Your task to perform on an android device: Show me the alarms in the clock app Image 0: 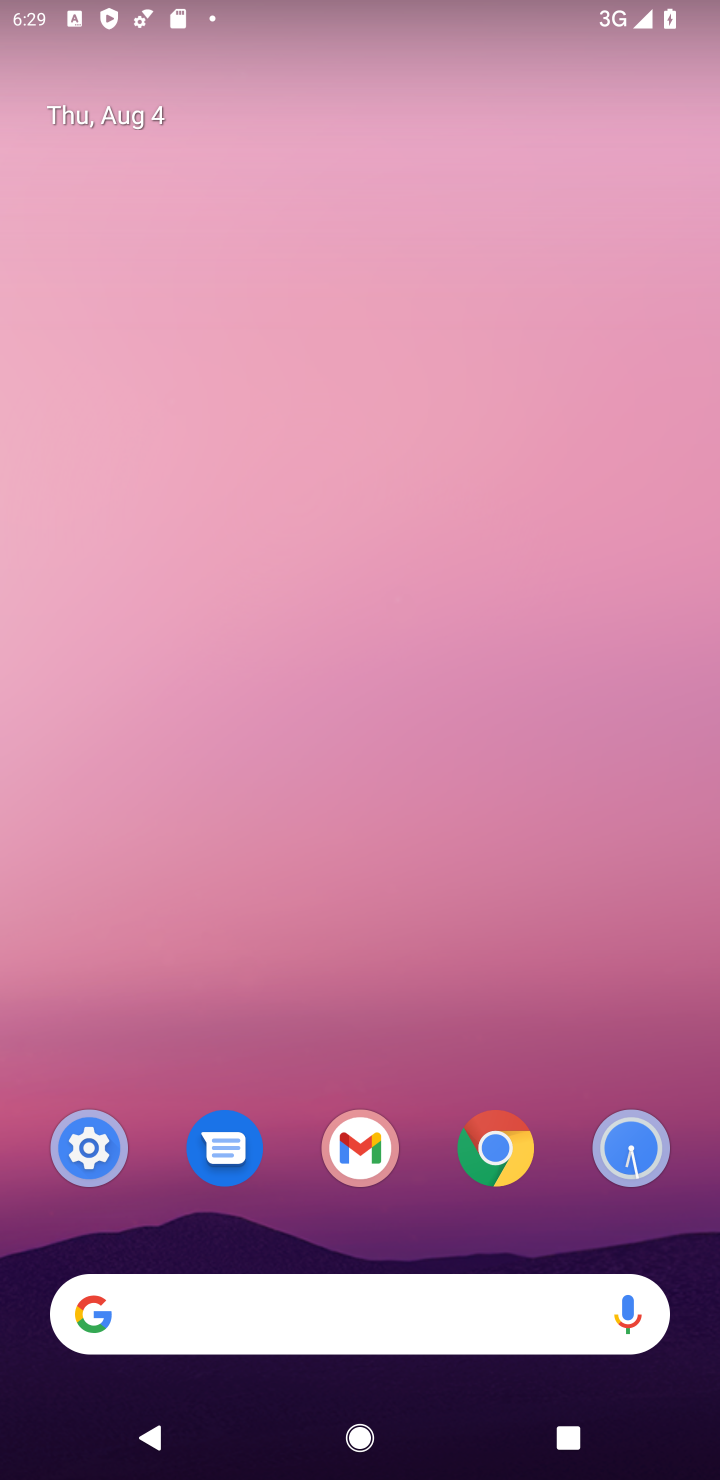
Step 0: click (626, 1146)
Your task to perform on an android device: Show me the alarms in the clock app Image 1: 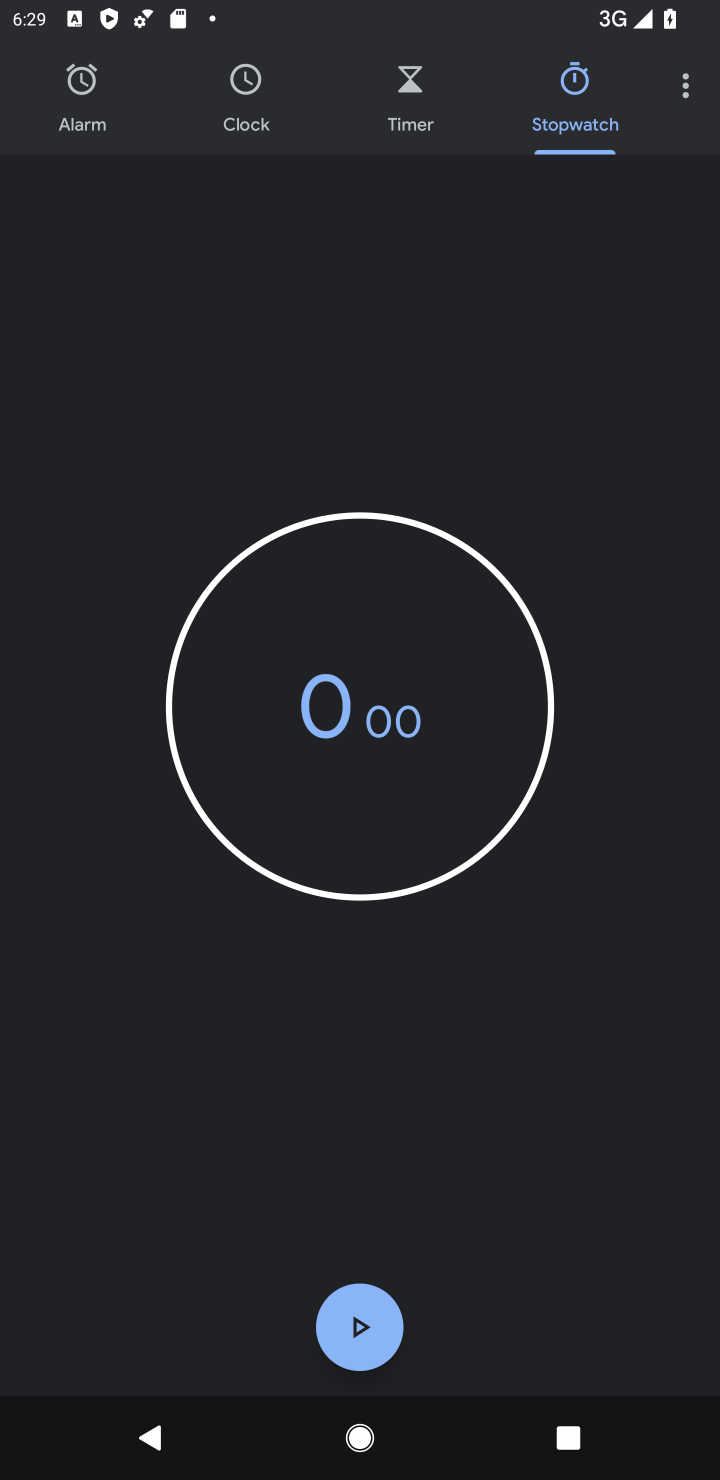
Step 1: click (79, 87)
Your task to perform on an android device: Show me the alarms in the clock app Image 2: 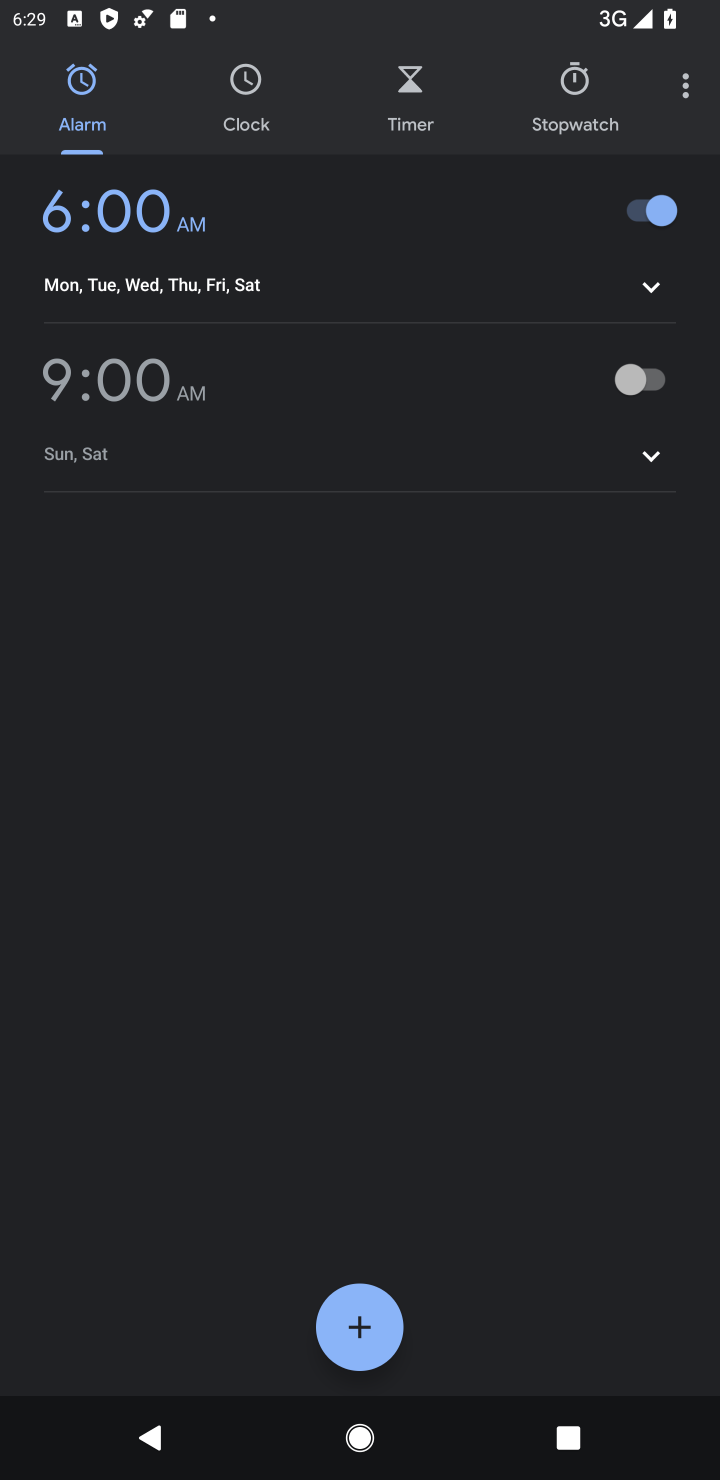
Step 2: task complete